Your task to perform on an android device: install app "Adobe Acrobat Reader" Image 0: 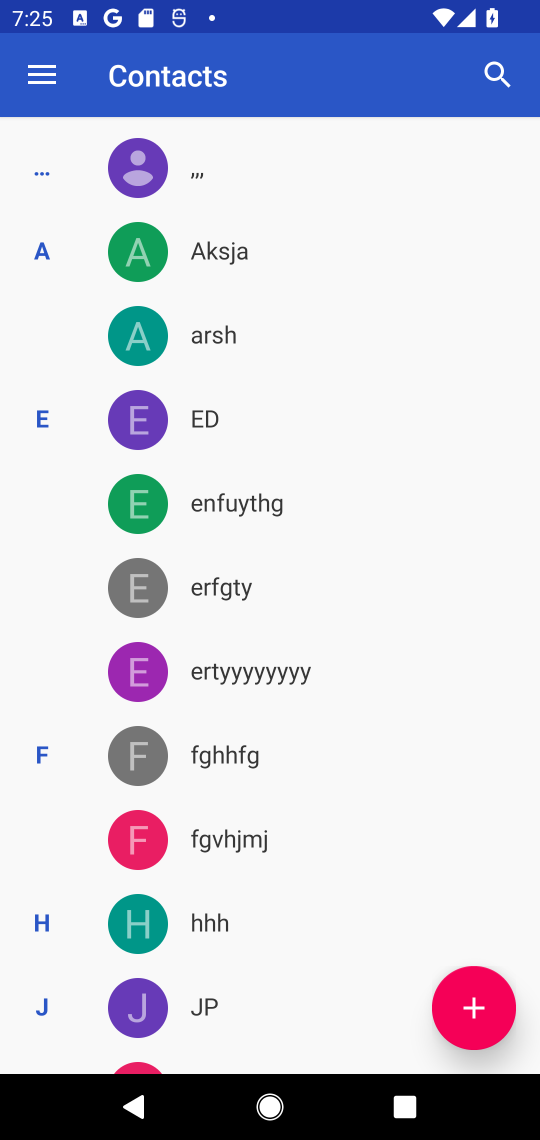
Step 0: press home button
Your task to perform on an android device: install app "Adobe Acrobat Reader" Image 1: 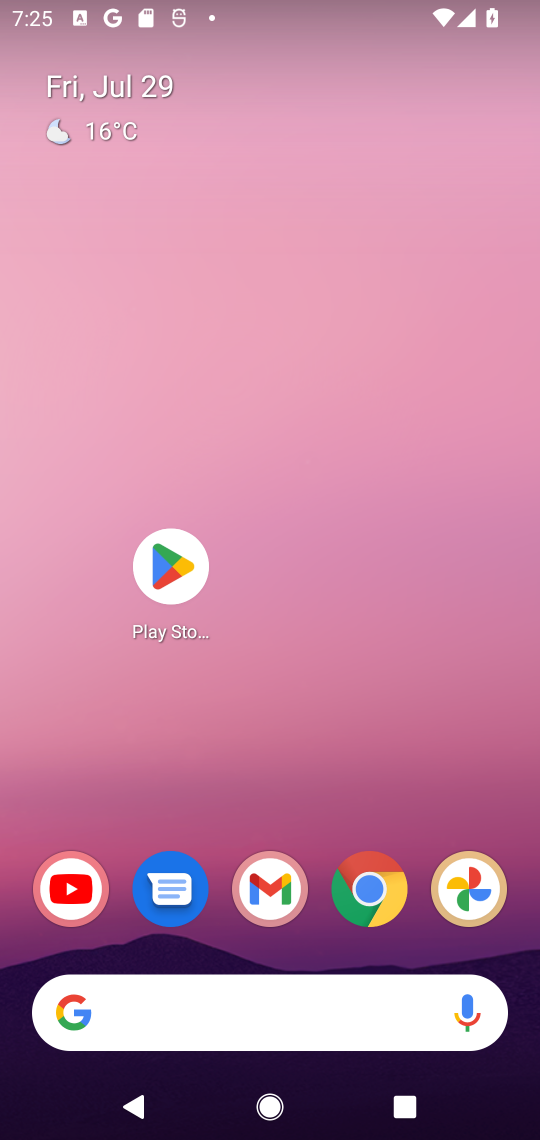
Step 1: click (168, 563)
Your task to perform on an android device: install app "Adobe Acrobat Reader" Image 2: 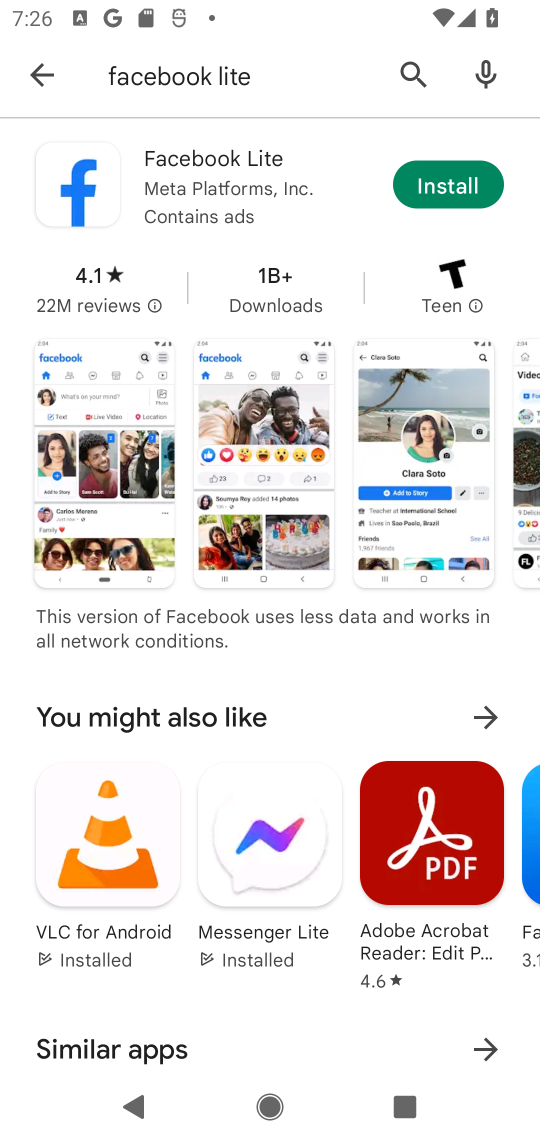
Step 2: click (415, 69)
Your task to perform on an android device: install app "Adobe Acrobat Reader" Image 3: 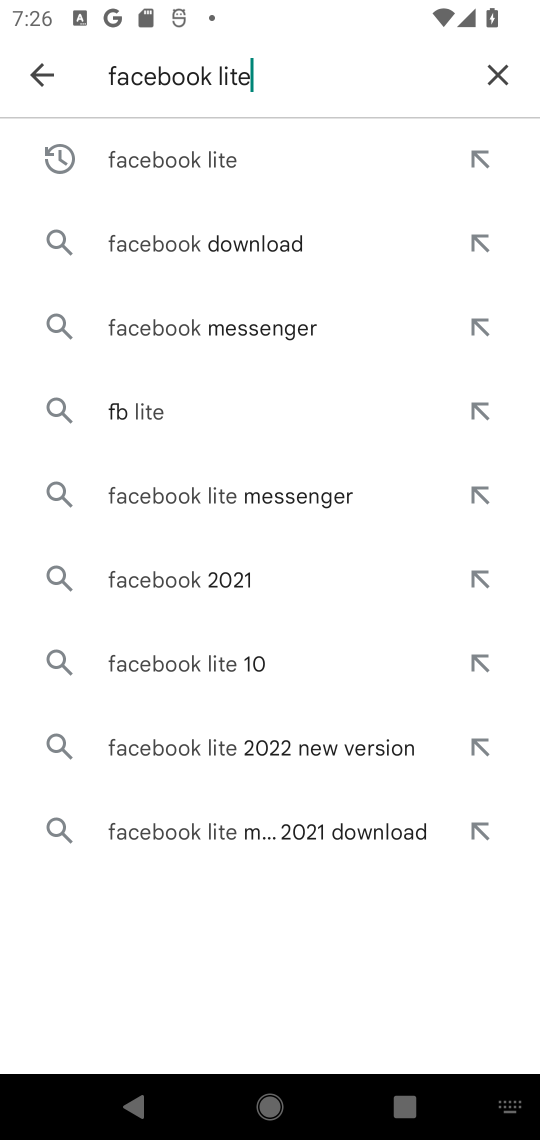
Step 3: click (500, 70)
Your task to perform on an android device: install app "Adobe Acrobat Reader" Image 4: 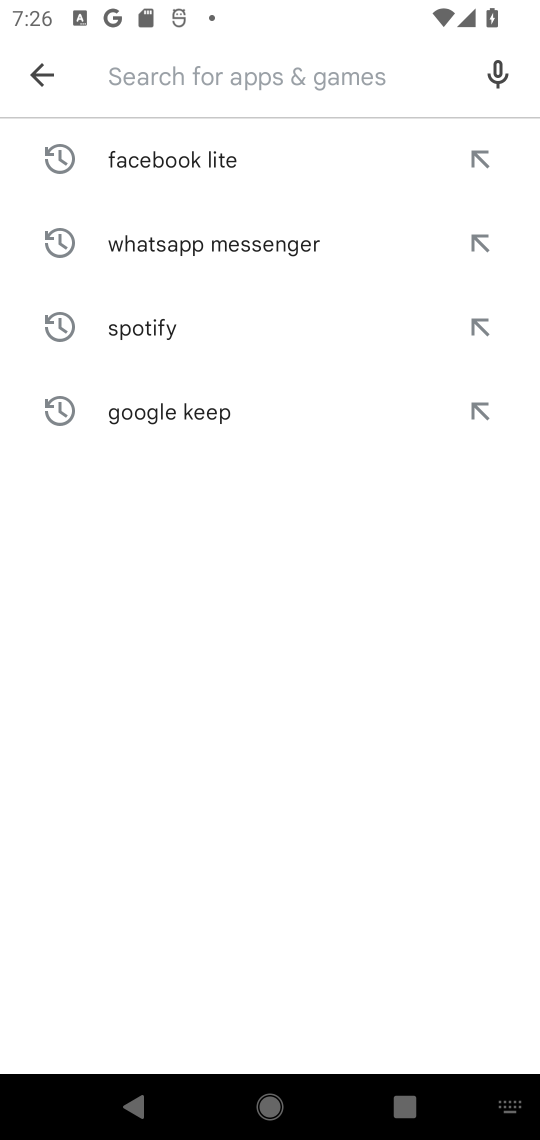
Step 4: type "Adobe Acrobat Reader"
Your task to perform on an android device: install app "Adobe Acrobat Reader" Image 5: 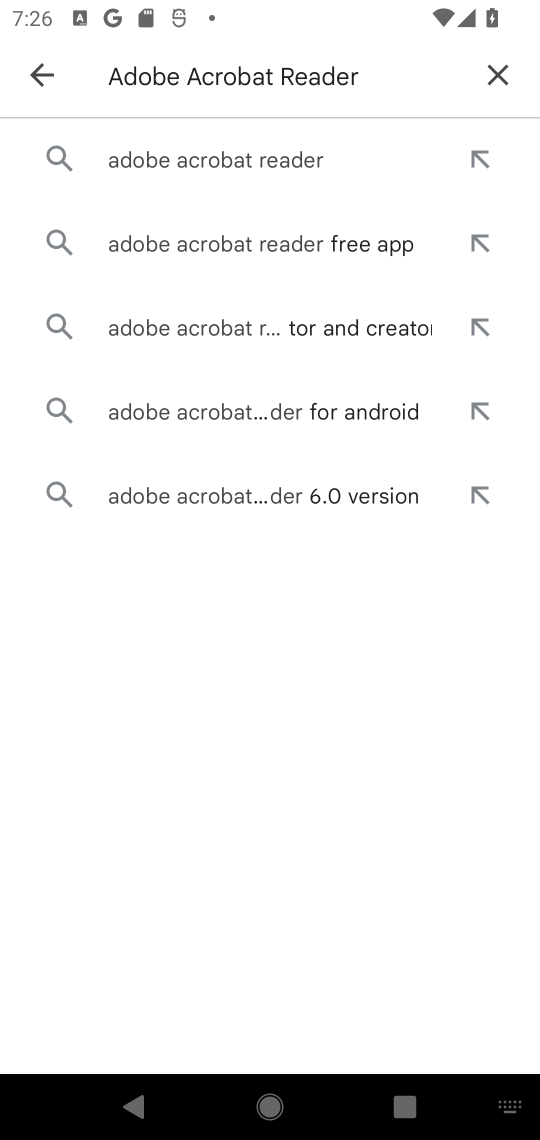
Step 5: click (259, 157)
Your task to perform on an android device: install app "Adobe Acrobat Reader" Image 6: 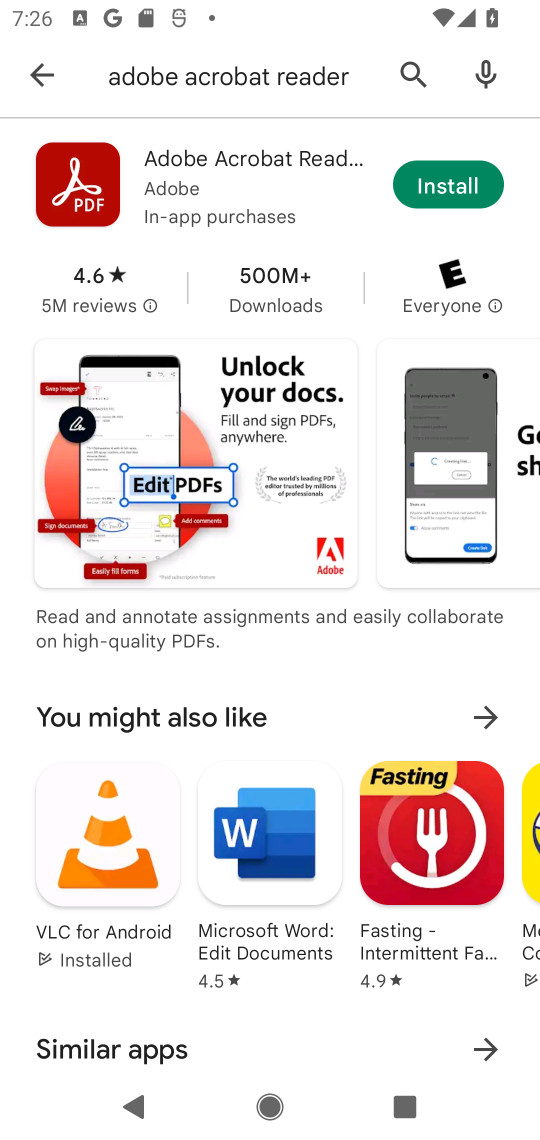
Step 6: click (452, 186)
Your task to perform on an android device: install app "Adobe Acrobat Reader" Image 7: 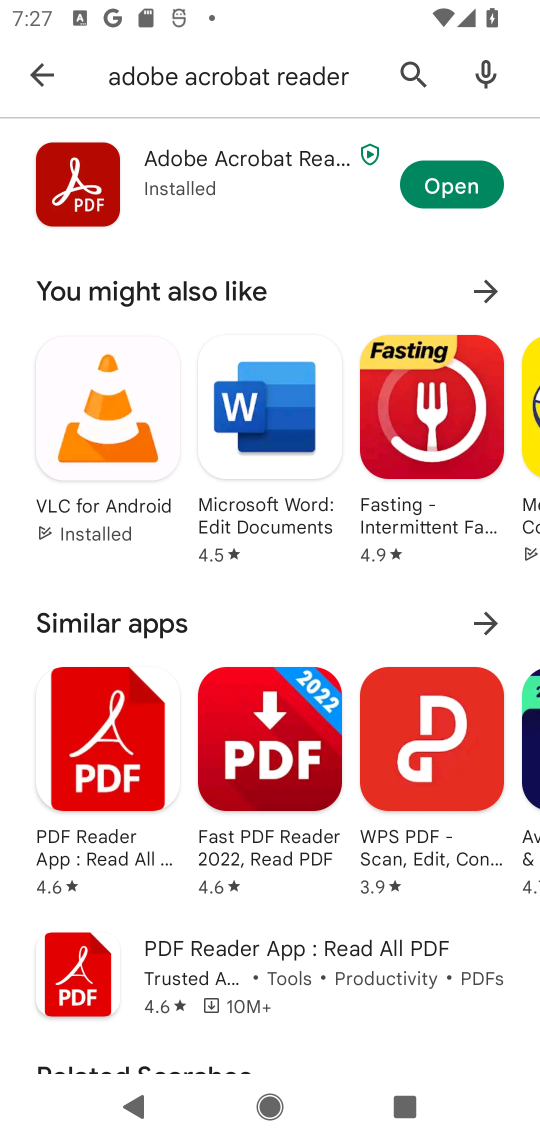
Step 7: task complete